Your task to perform on an android device: Open the Play Movies app and select the watchlist tab. Image 0: 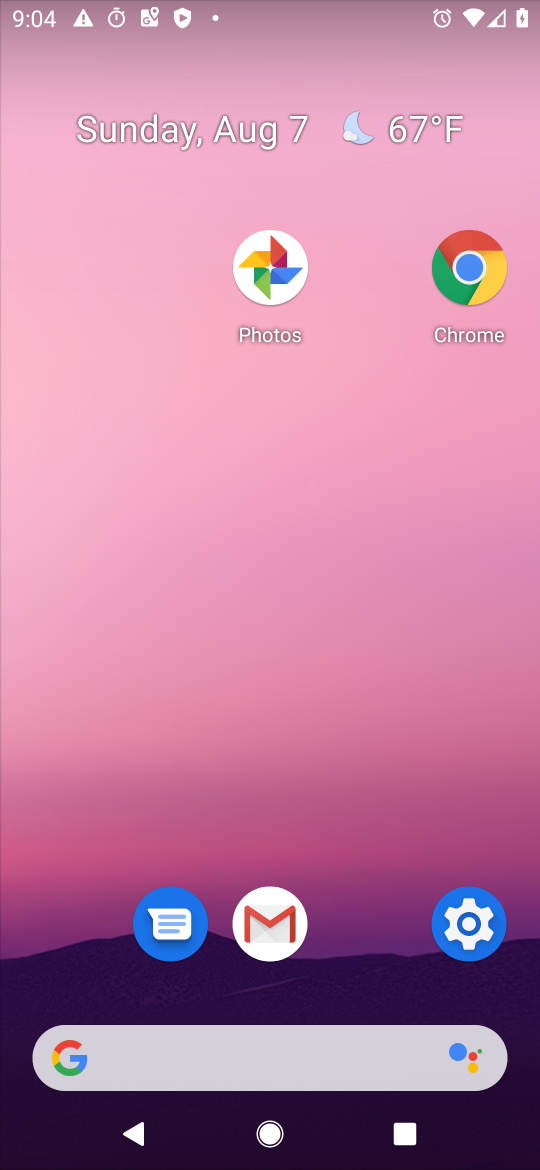
Step 0: press home button
Your task to perform on an android device: Open the Play Movies app and select the watchlist tab. Image 1: 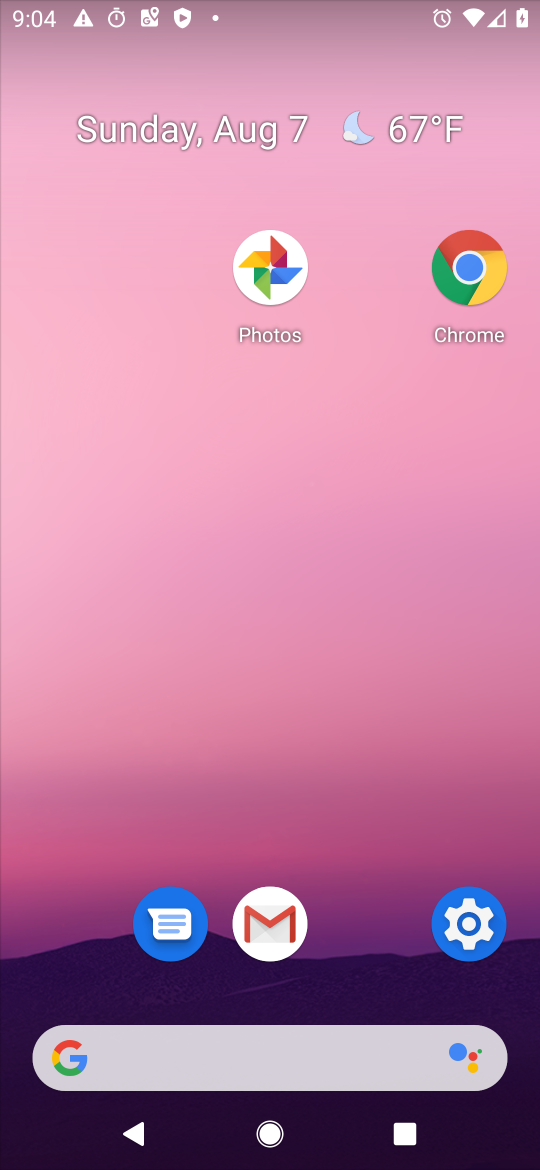
Step 1: drag from (244, 466) to (295, 176)
Your task to perform on an android device: Open the Play Movies app and select the watchlist tab. Image 2: 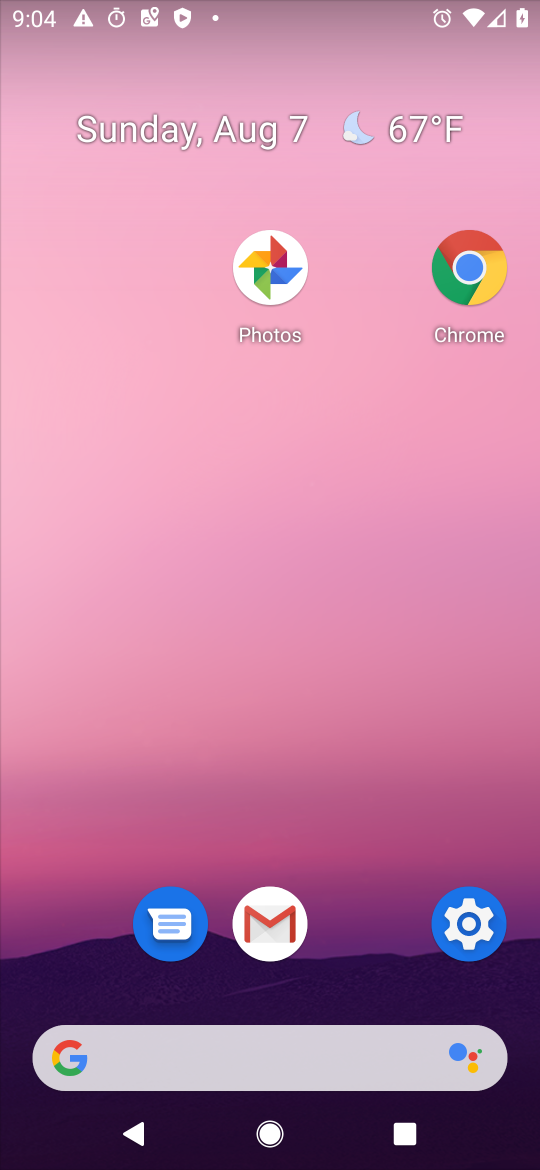
Step 2: drag from (346, 1064) to (220, 141)
Your task to perform on an android device: Open the Play Movies app and select the watchlist tab. Image 3: 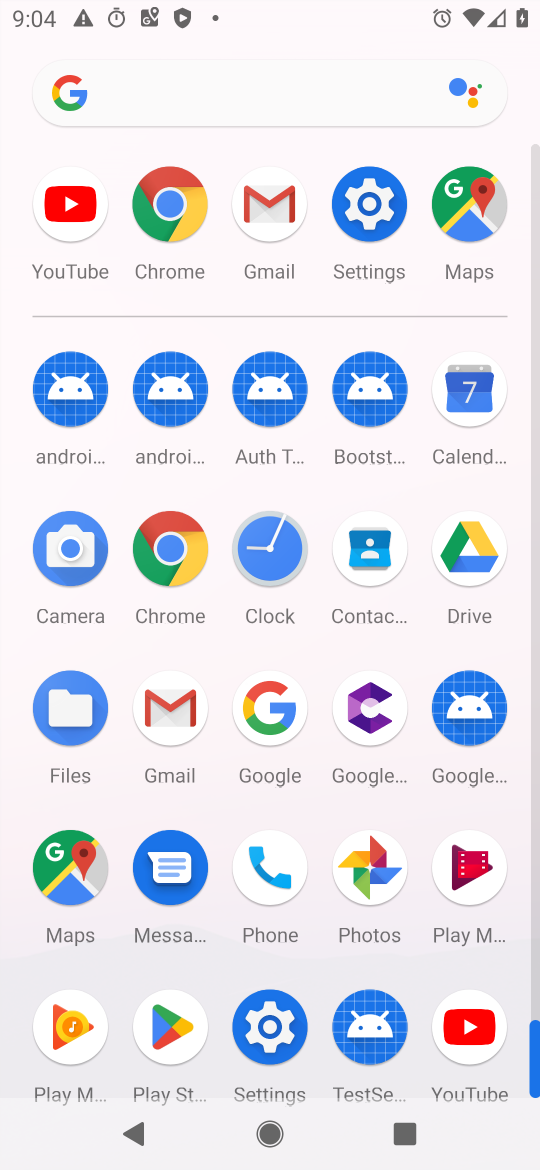
Step 3: click (452, 867)
Your task to perform on an android device: Open the Play Movies app and select the watchlist tab. Image 4: 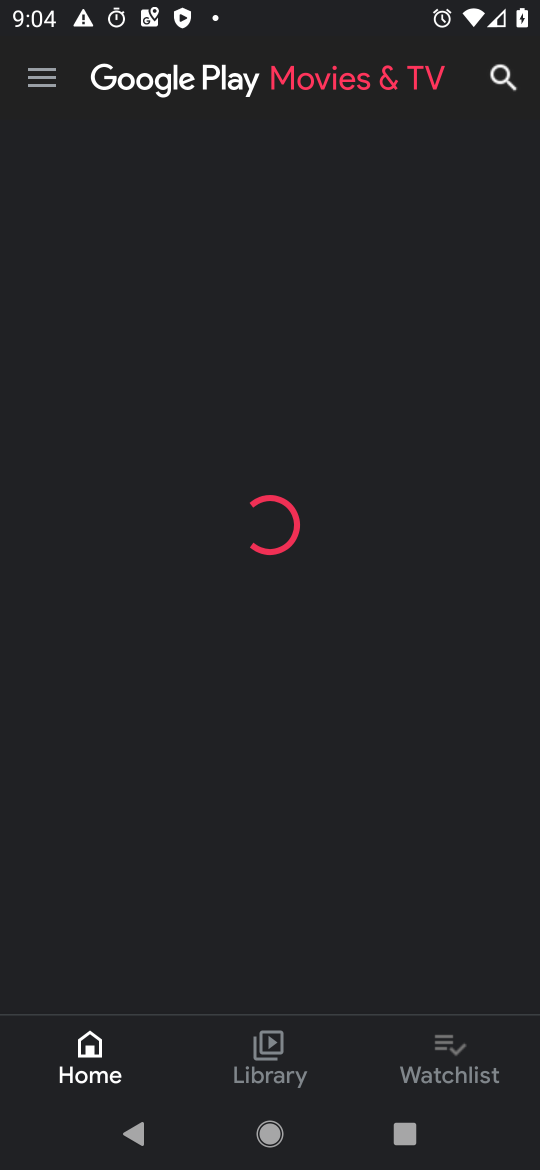
Step 4: click (437, 1051)
Your task to perform on an android device: Open the Play Movies app and select the watchlist tab. Image 5: 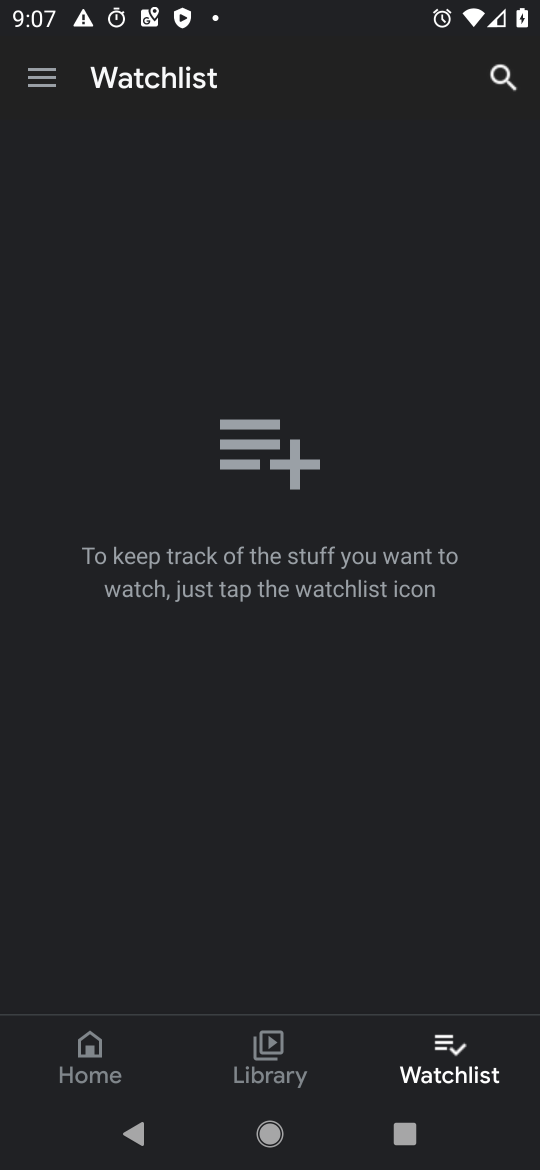
Step 5: task complete